Your task to perform on an android device: install app "Paramount+ | Peak Streaming" Image 0: 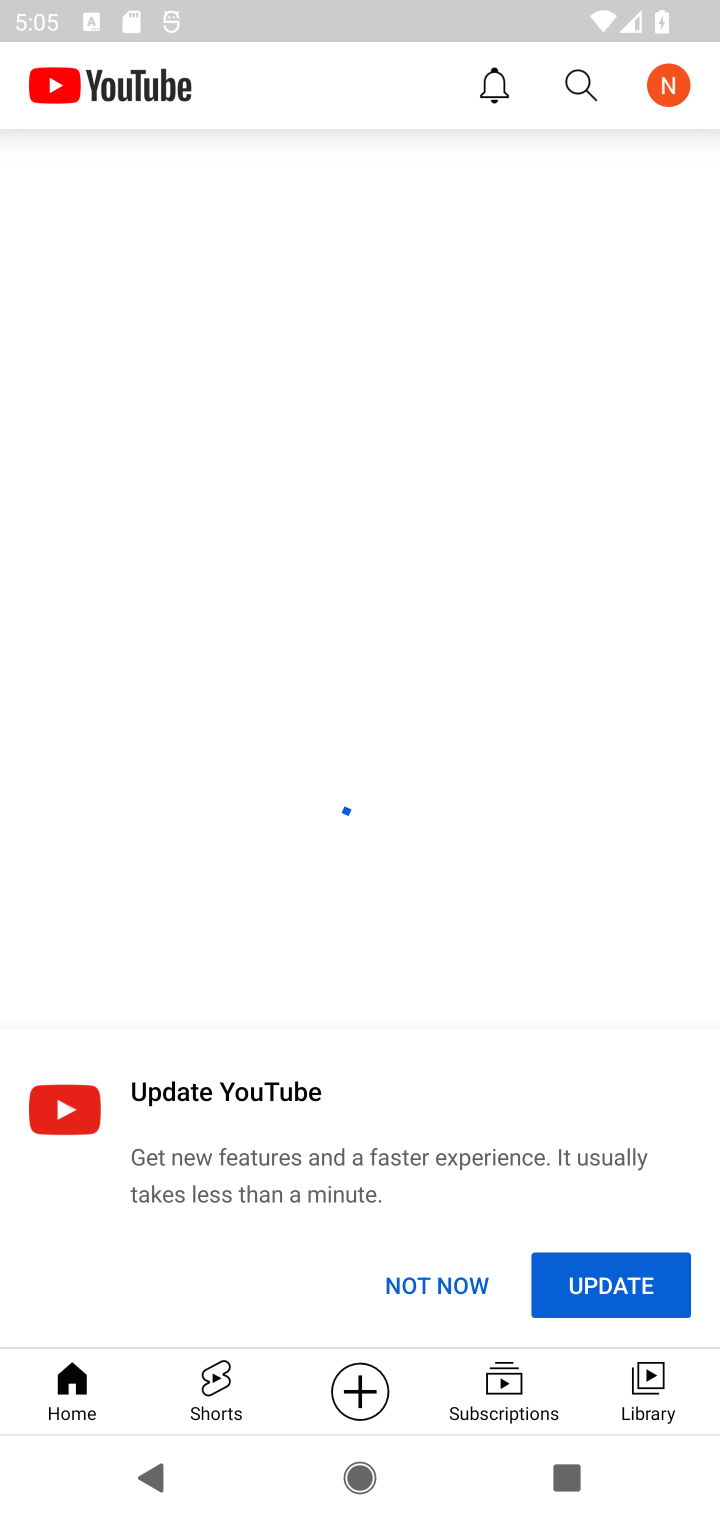
Step 0: press home button
Your task to perform on an android device: install app "Paramount+ | Peak Streaming" Image 1: 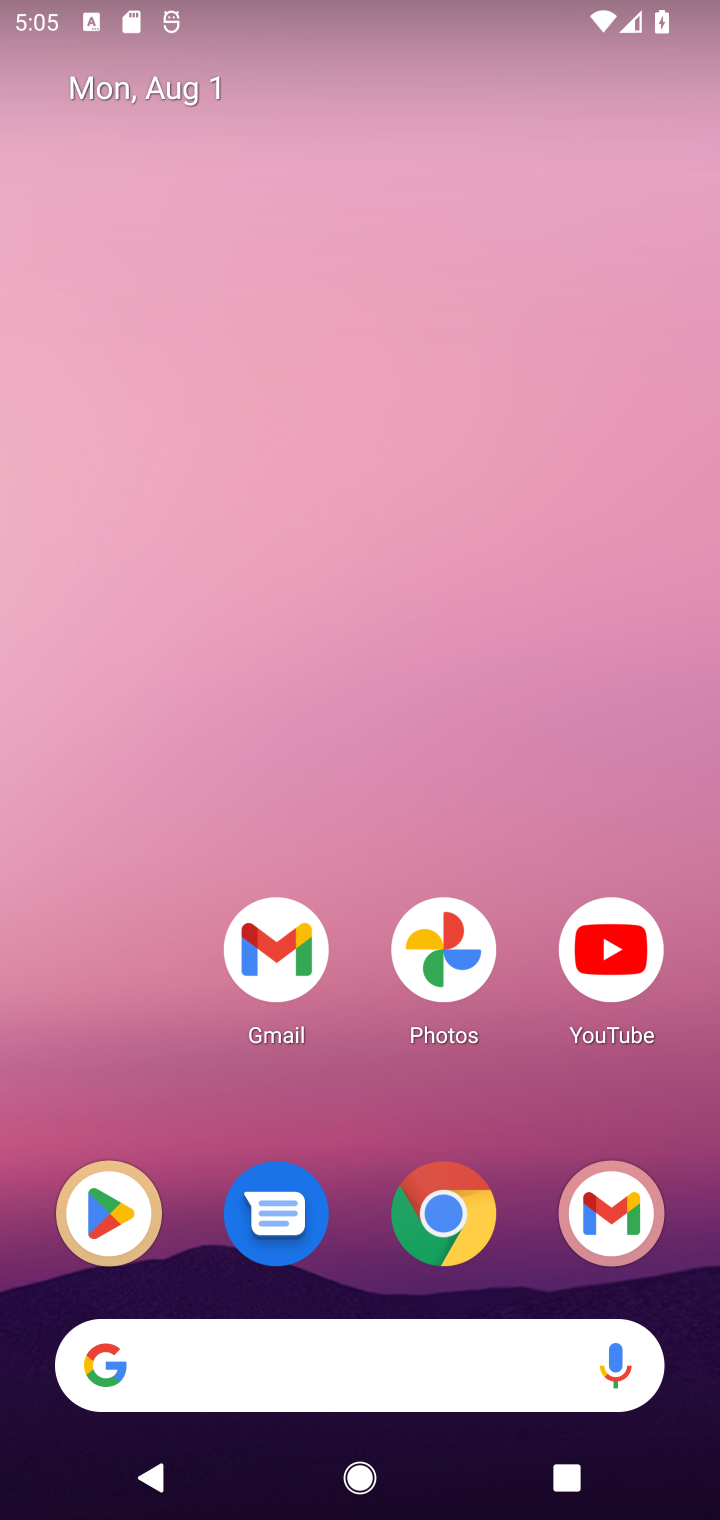
Step 1: drag from (477, 1118) to (466, 84)
Your task to perform on an android device: install app "Paramount+ | Peak Streaming" Image 2: 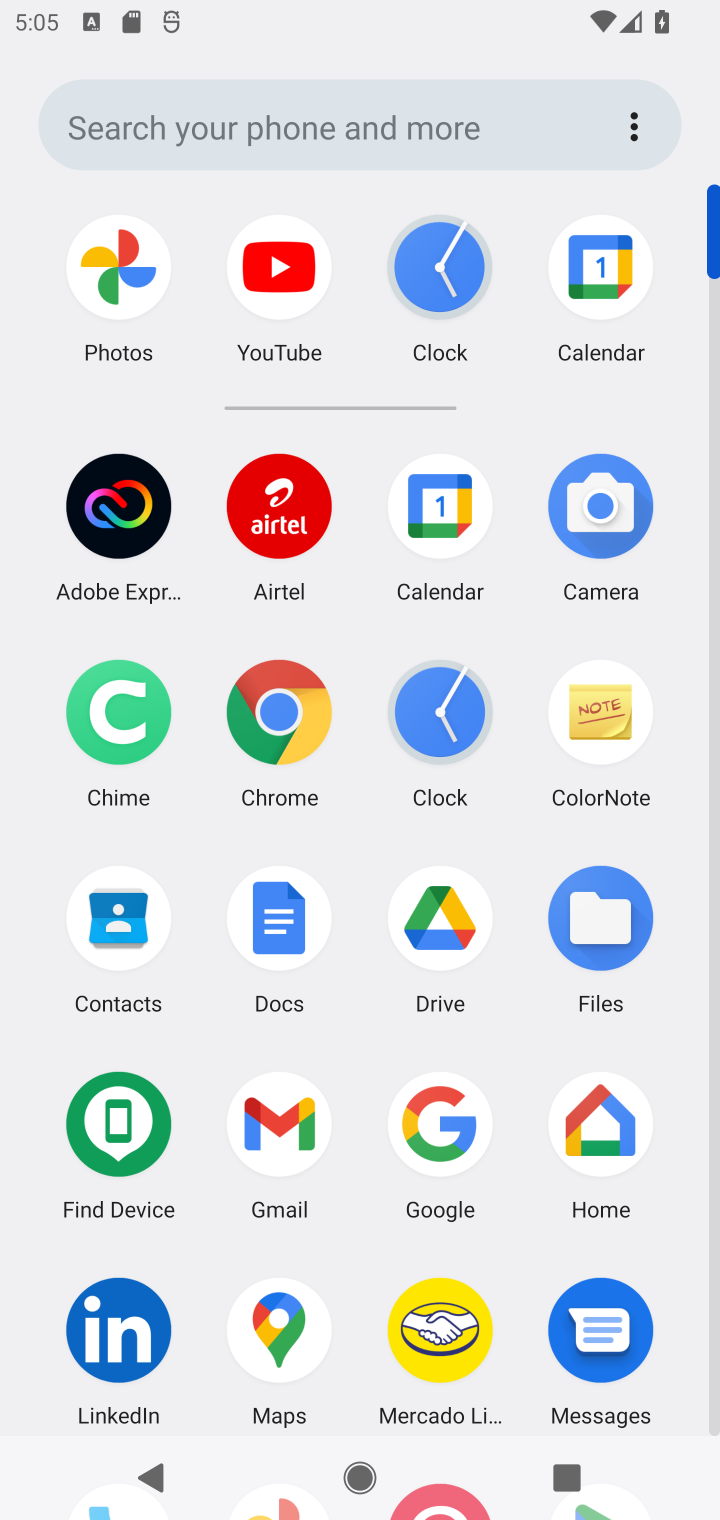
Step 2: drag from (514, 1193) to (535, 374)
Your task to perform on an android device: install app "Paramount+ | Peak Streaming" Image 3: 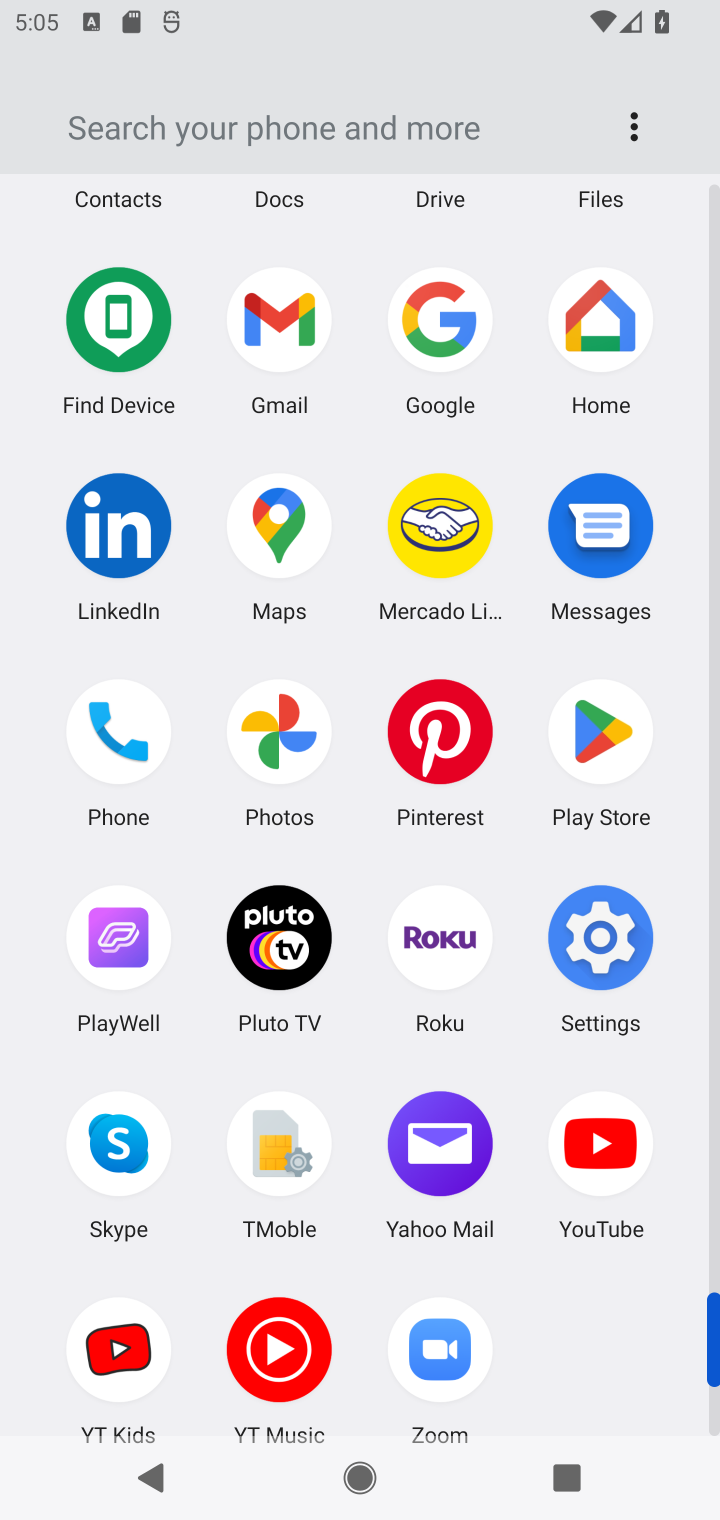
Step 3: click (592, 721)
Your task to perform on an android device: install app "Paramount+ | Peak Streaming" Image 4: 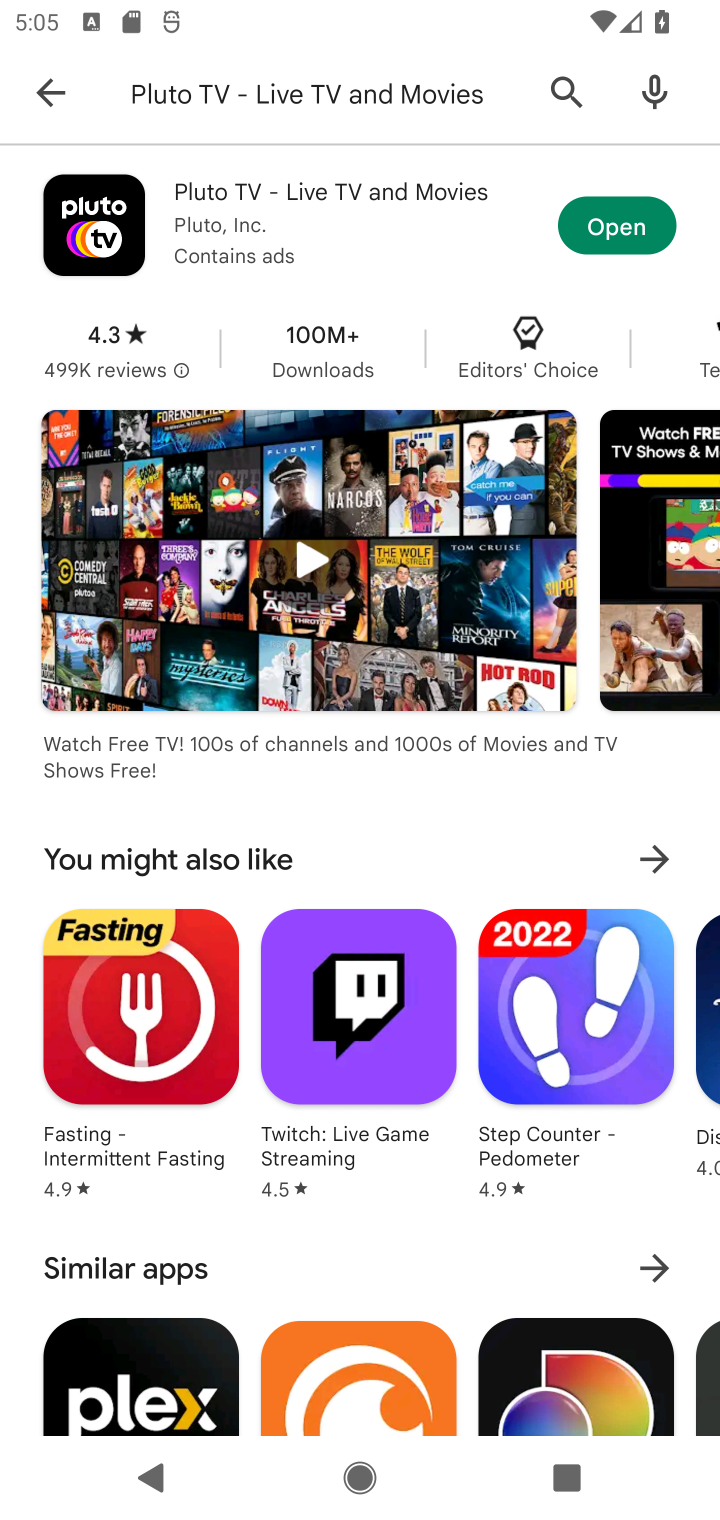
Step 4: click (343, 72)
Your task to perform on an android device: install app "Paramount+ | Peak Streaming" Image 5: 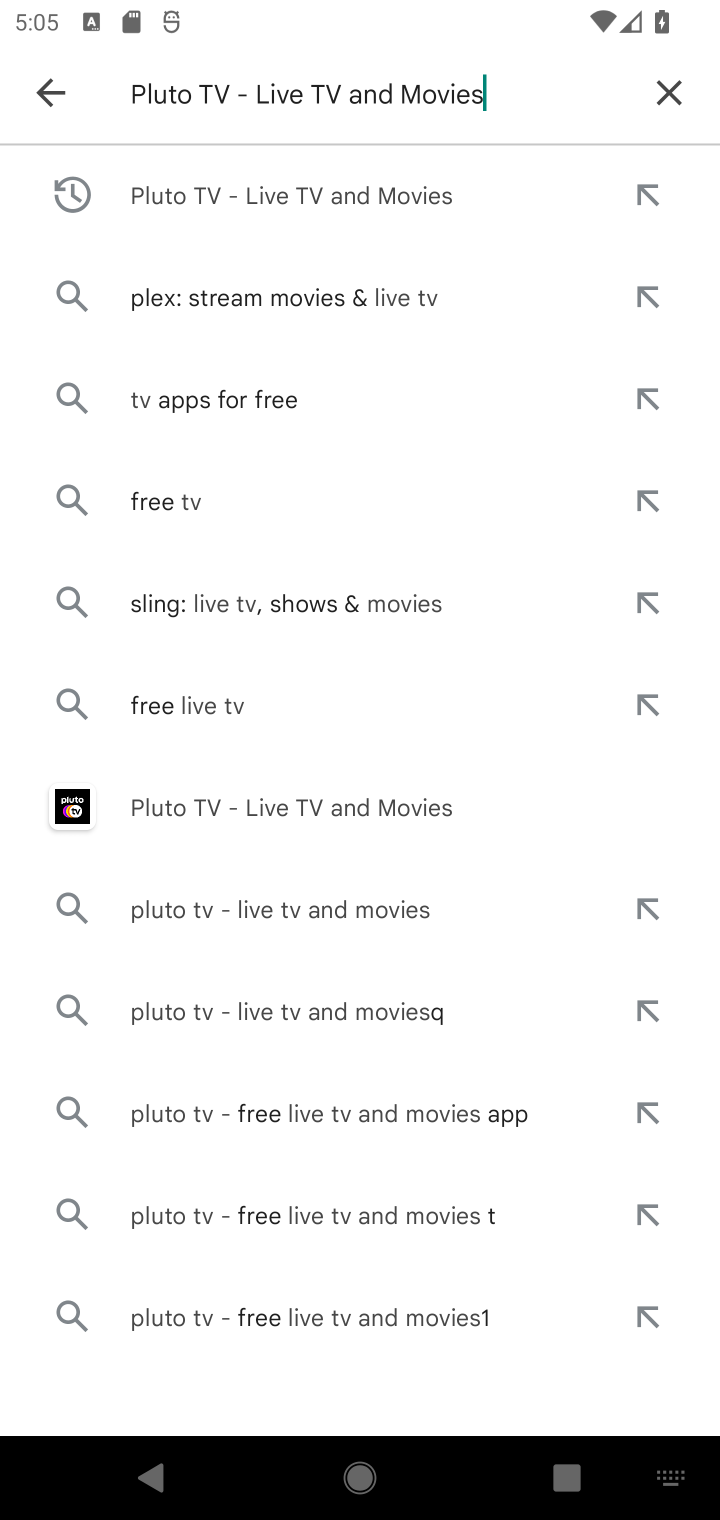
Step 5: click (680, 80)
Your task to perform on an android device: install app "Paramount+ | Peak Streaming" Image 6: 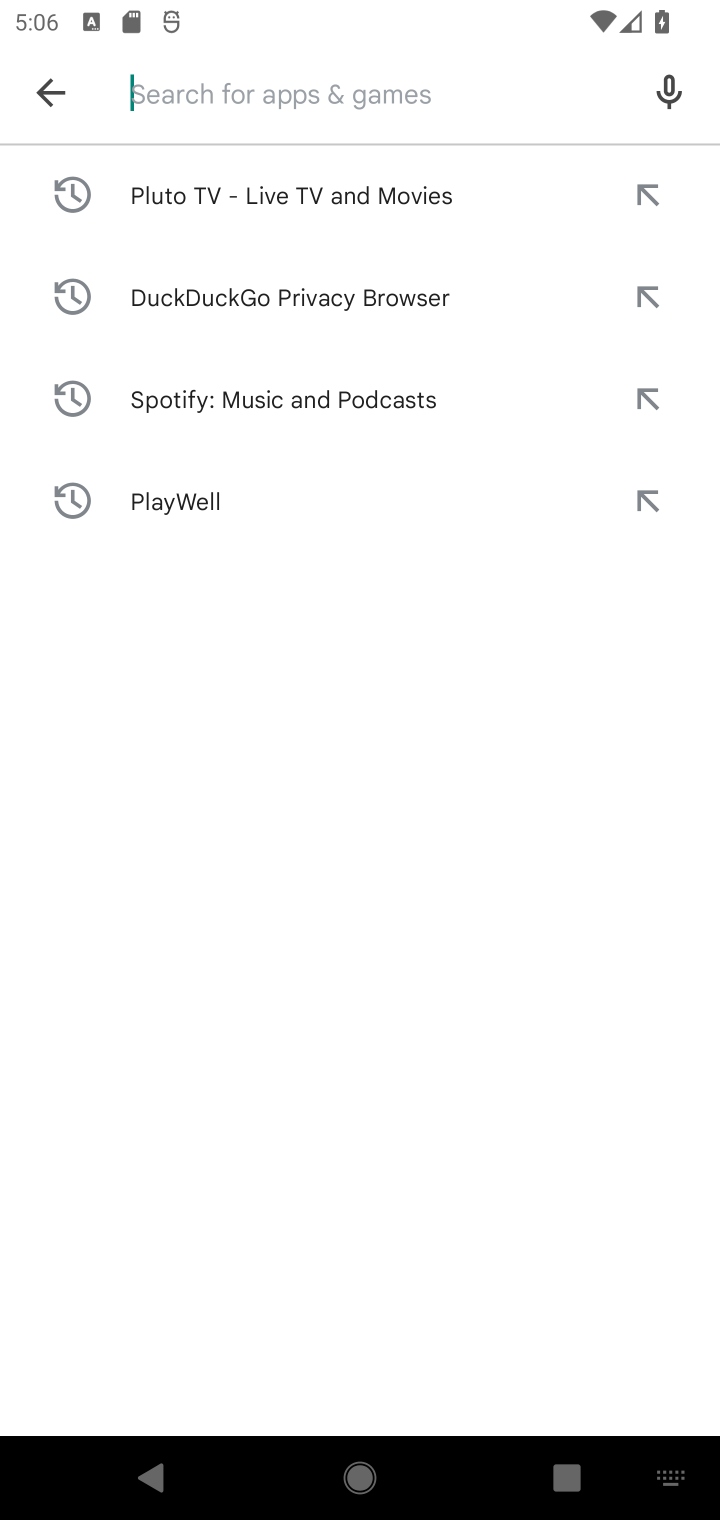
Step 6: type "Paramount+ | Peak Steaming"
Your task to perform on an android device: install app "Paramount+ | Peak Streaming" Image 7: 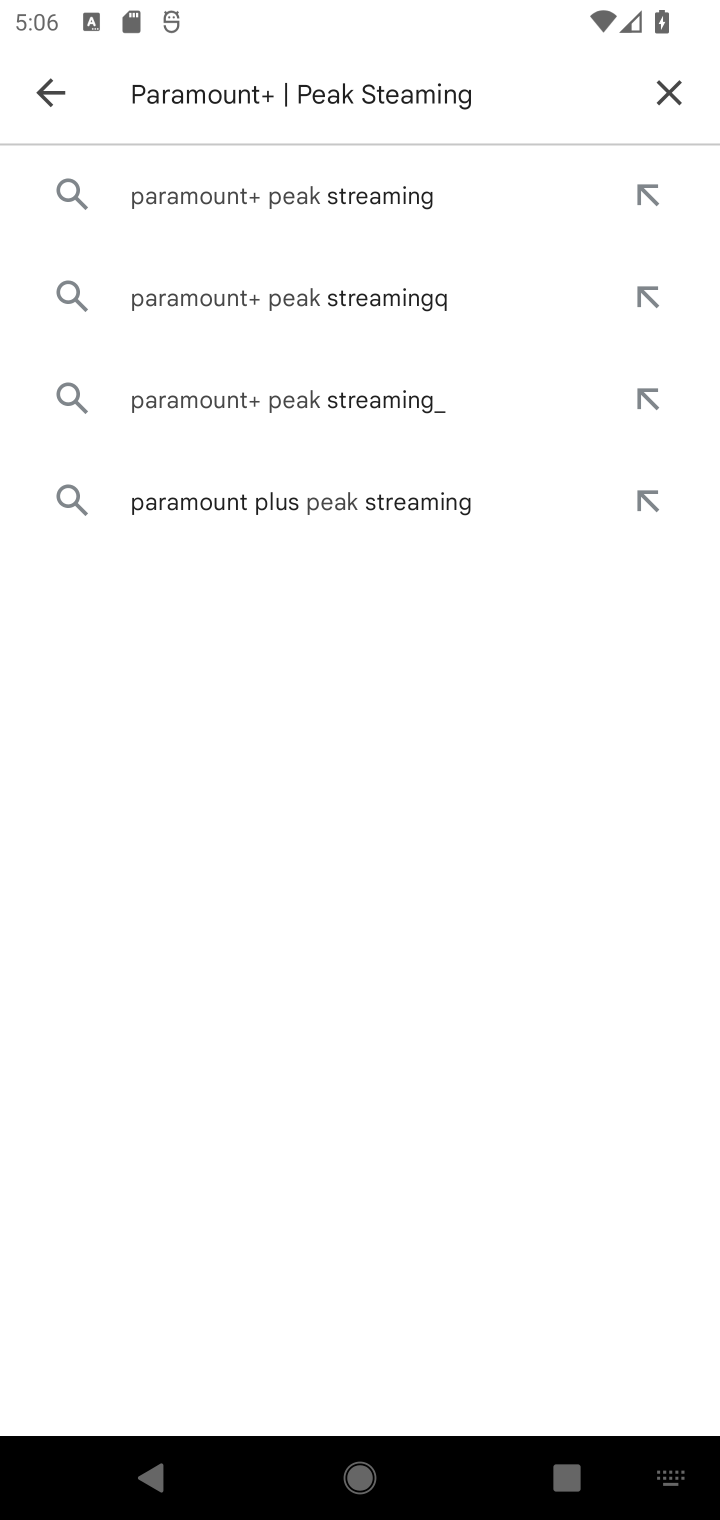
Step 7: press enter
Your task to perform on an android device: install app "Paramount+ | Peak Streaming" Image 8: 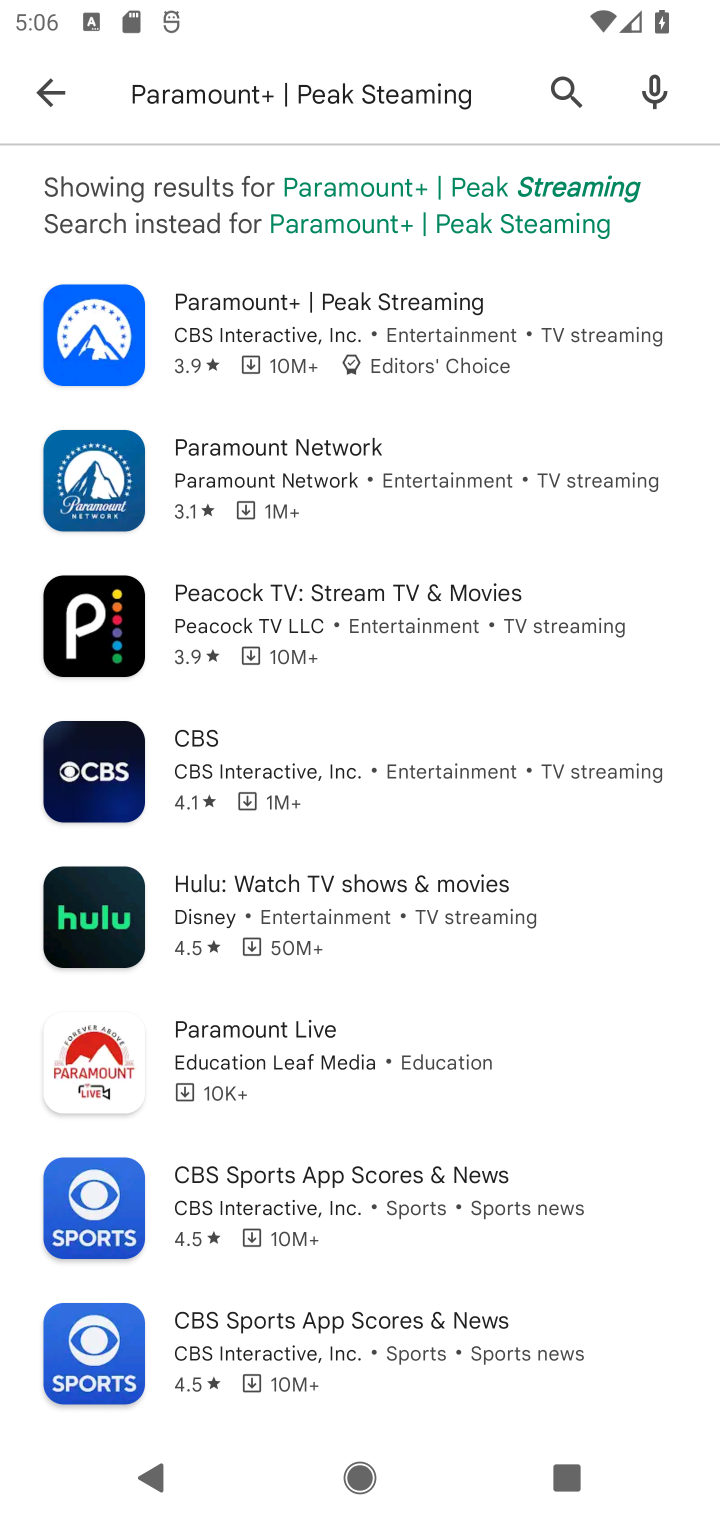
Step 8: click (538, 361)
Your task to perform on an android device: install app "Paramount+ | Peak Streaming" Image 9: 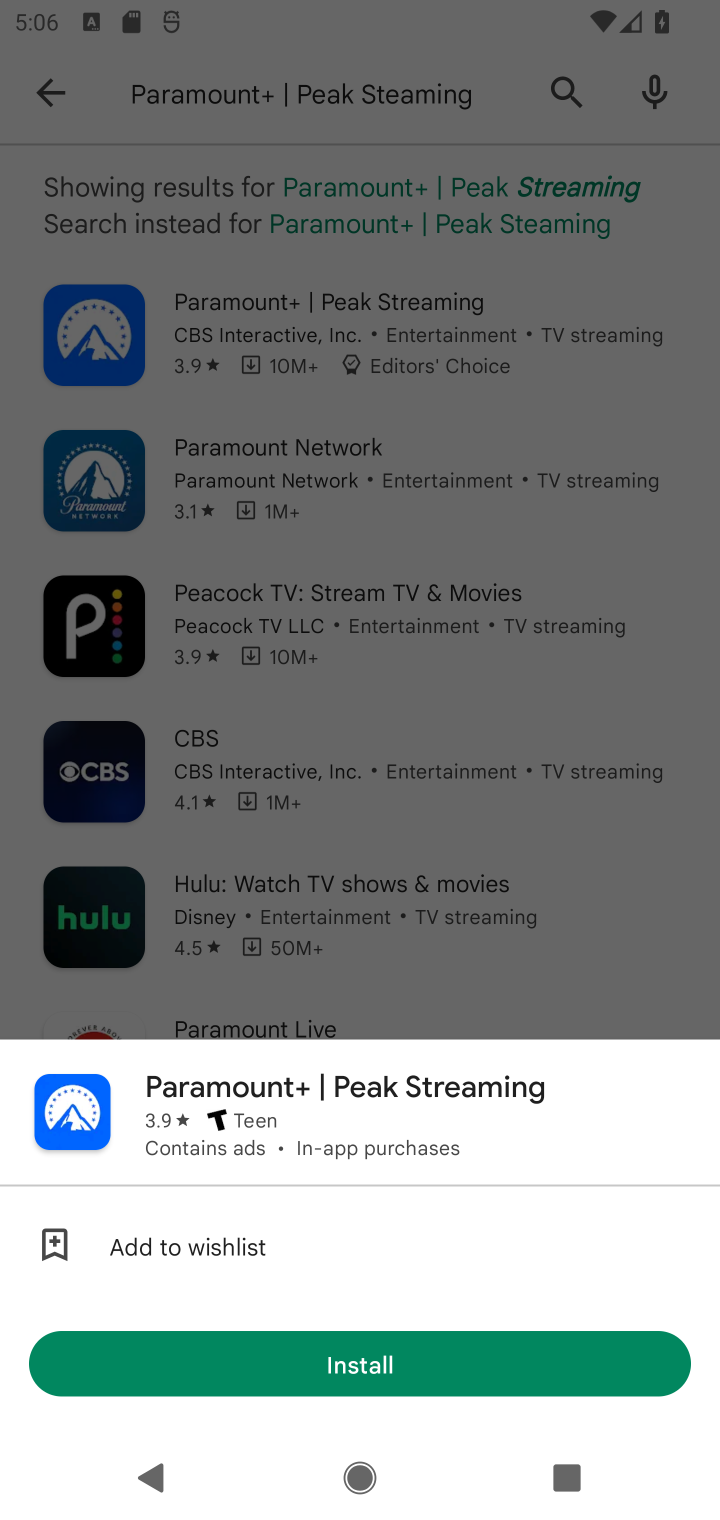
Step 9: click (476, 1398)
Your task to perform on an android device: install app "Paramount+ | Peak Streaming" Image 10: 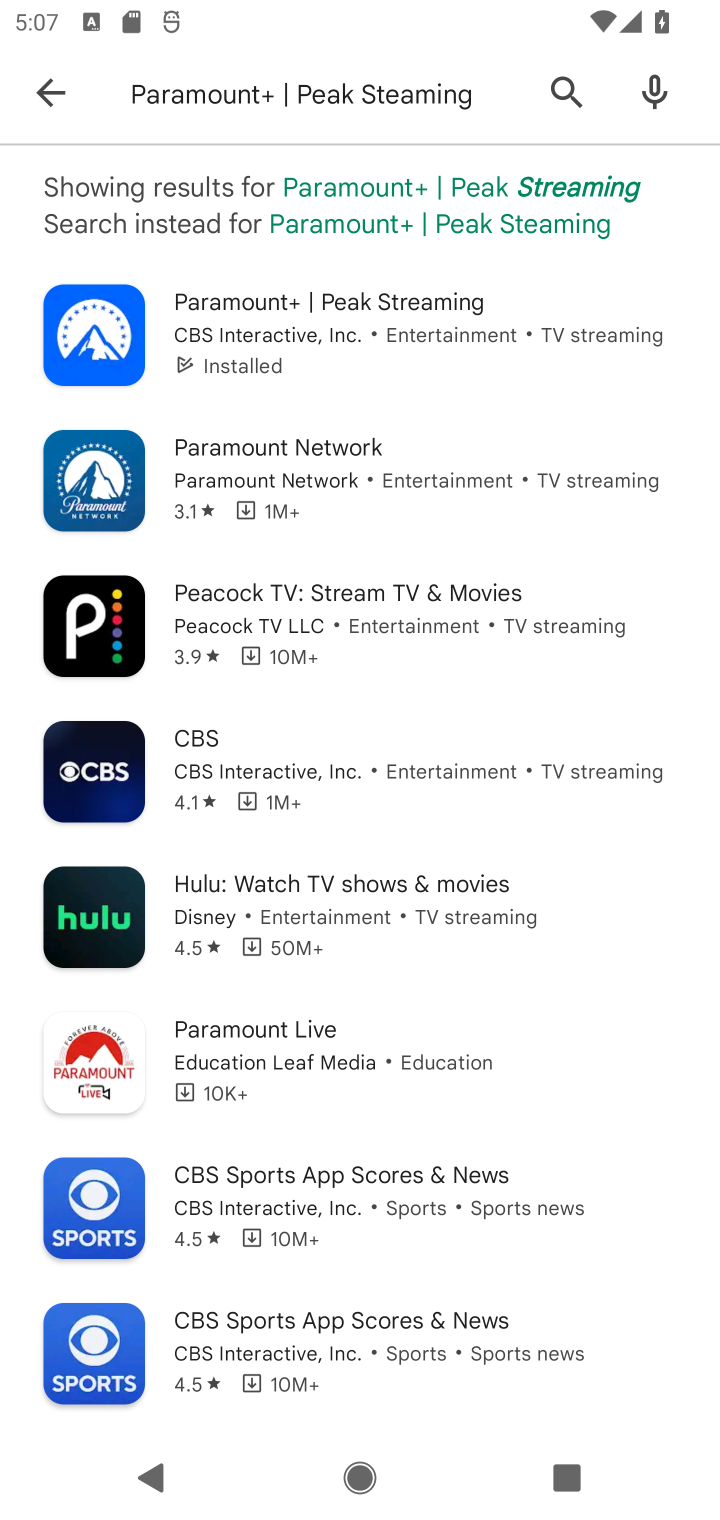
Step 10: task complete